Your task to perform on an android device: Open my contact list Image 0: 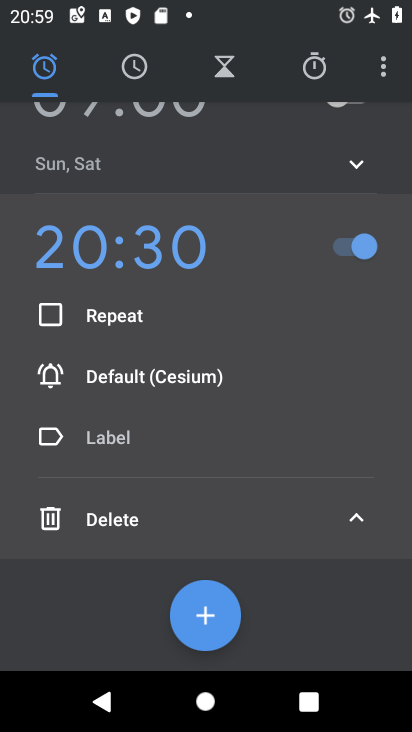
Step 0: press home button
Your task to perform on an android device: Open my contact list Image 1: 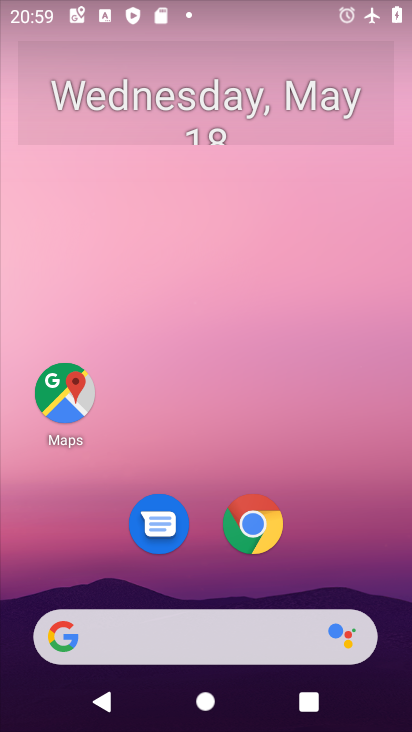
Step 1: drag from (330, 532) to (325, 76)
Your task to perform on an android device: Open my contact list Image 2: 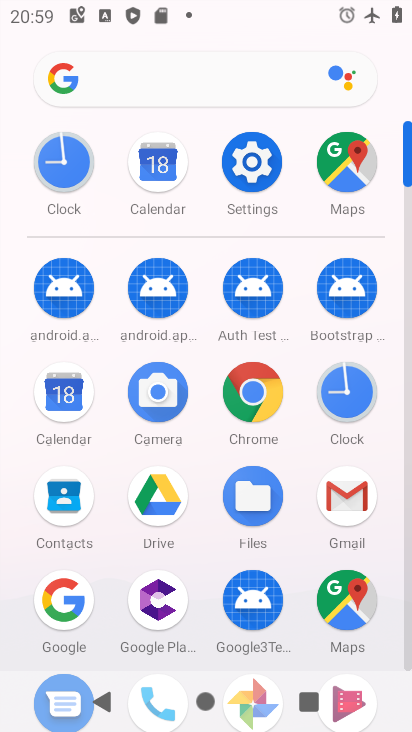
Step 2: click (68, 493)
Your task to perform on an android device: Open my contact list Image 3: 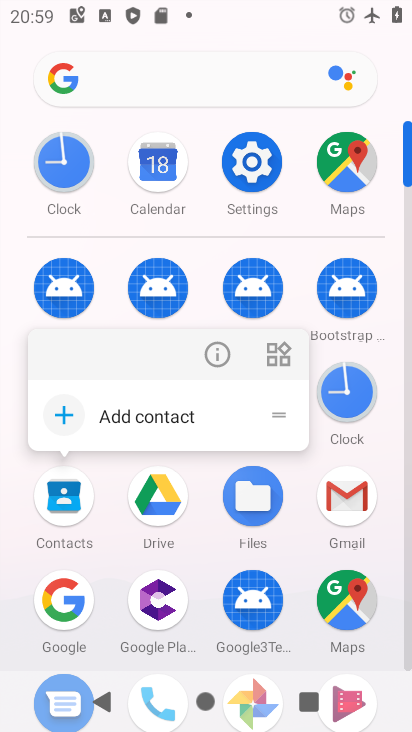
Step 3: click (68, 493)
Your task to perform on an android device: Open my contact list Image 4: 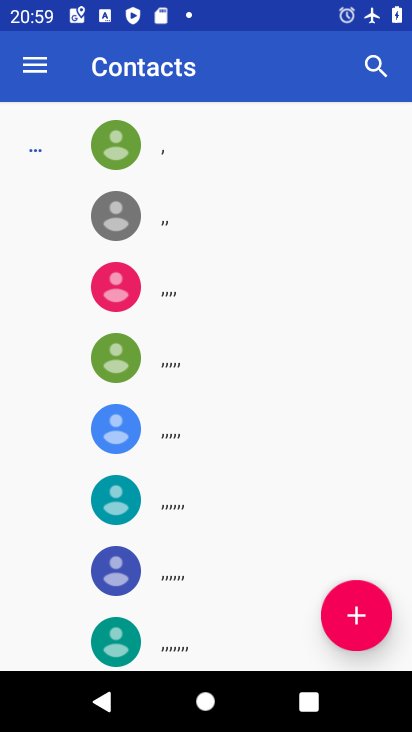
Step 4: task complete